Your task to perform on an android device: Search for sushi restaurants on Maps Image 0: 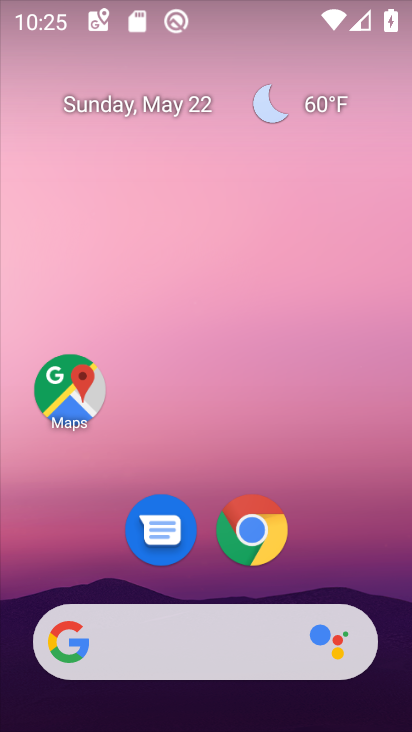
Step 0: click (86, 410)
Your task to perform on an android device: Search for sushi restaurants on Maps Image 1: 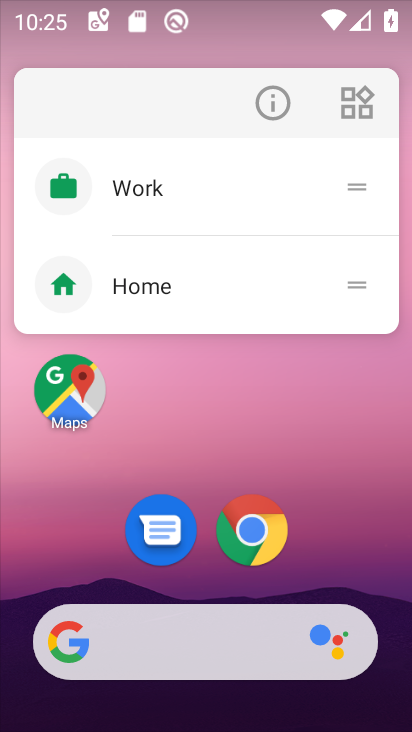
Step 1: click (48, 386)
Your task to perform on an android device: Search for sushi restaurants on Maps Image 2: 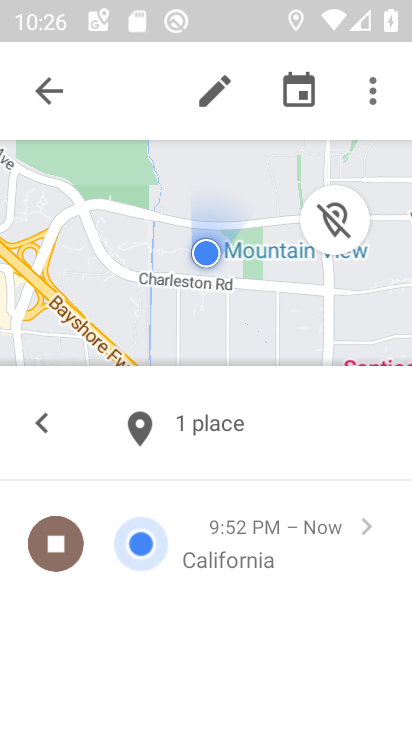
Step 2: click (29, 93)
Your task to perform on an android device: Search for sushi restaurants on Maps Image 3: 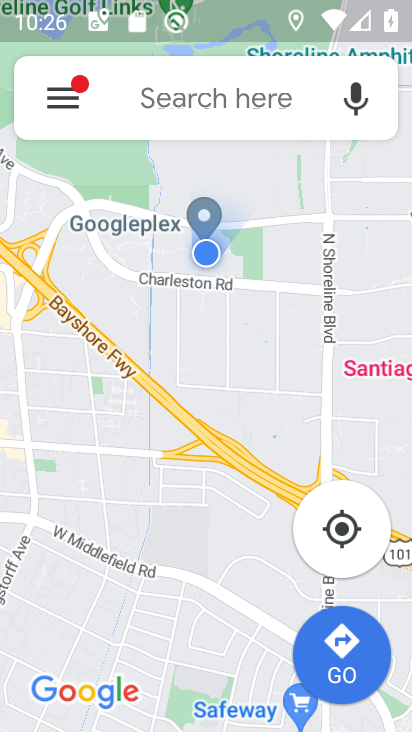
Step 3: click (159, 93)
Your task to perform on an android device: Search for sushi restaurants on Maps Image 4: 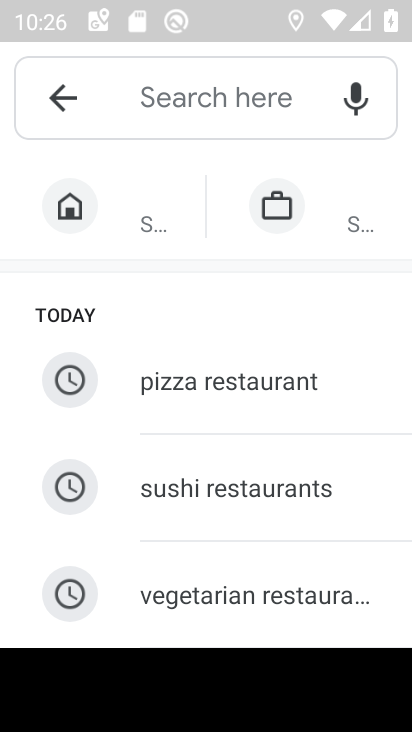
Step 4: type "sushi restaurants"
Your task to perform on an android device: Search for sushi restaurants on Maps Image 5: 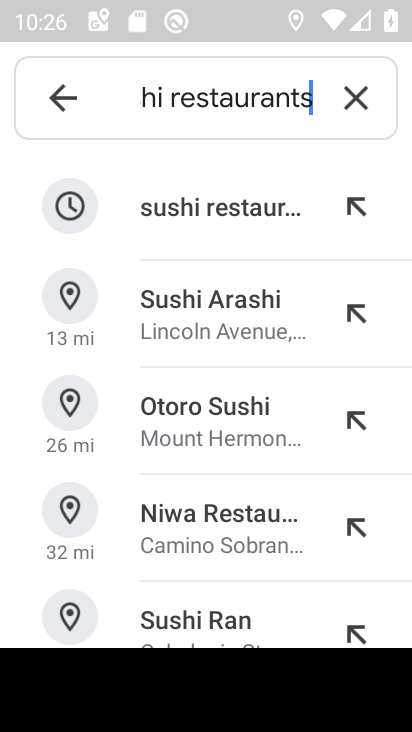
Step 5: click (198, 201)
Your task to perform on an android device: Search for sushi restaurants on Maps Image 6: 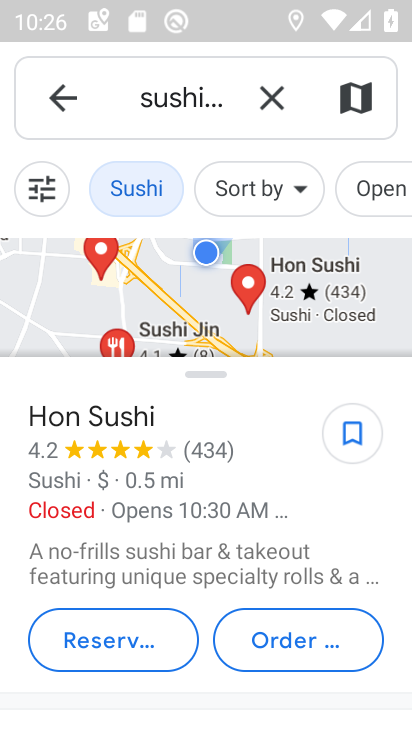
Step 6: task complete